Your task to perform on an android device: Open battery settings Image 0: 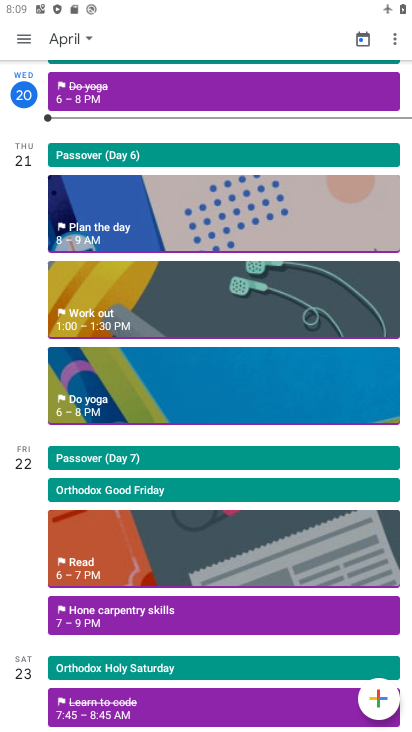
Step 0: press home button
Your task to perform on an android device: Open battery settings Image 1: 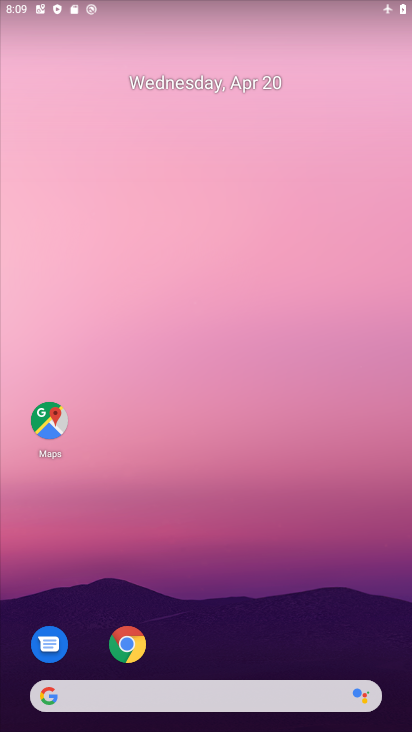
Step 1: drag from (340, 618) to (215, 108)
Your task to perform on an android device: Open battery settings Image 2: 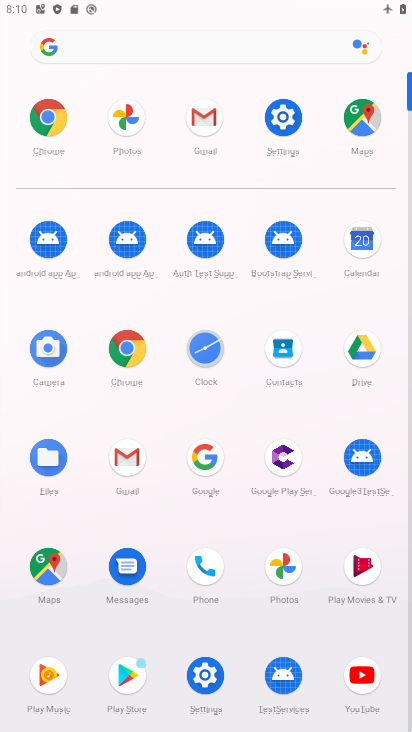
Step 2: click (209, 668)
Your task to perform on an android device: Open battery settings Image 3: 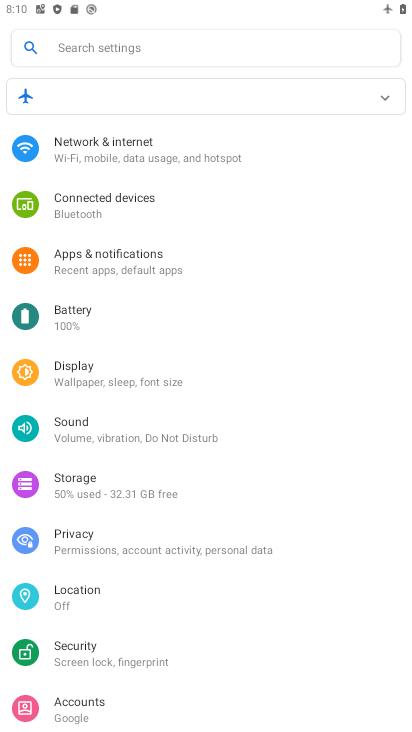
Step 3: click (121, 326)
Your task to perform on an android device: Open battery settings Image 4: 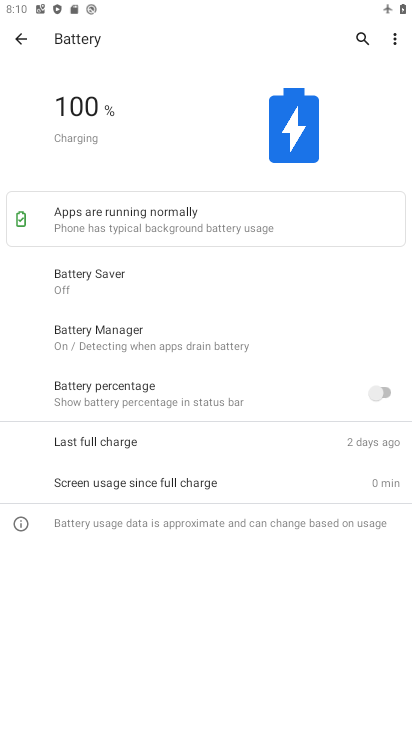
Step 4: task complete